Your task to perform on an android device: Go to privacy settings Image 0: 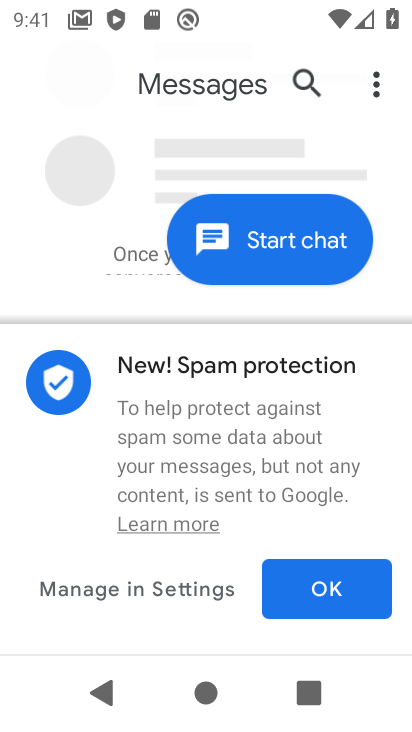
Step 0: press home button
Your task to perform on an android device: Go to privacy settings Image 1: 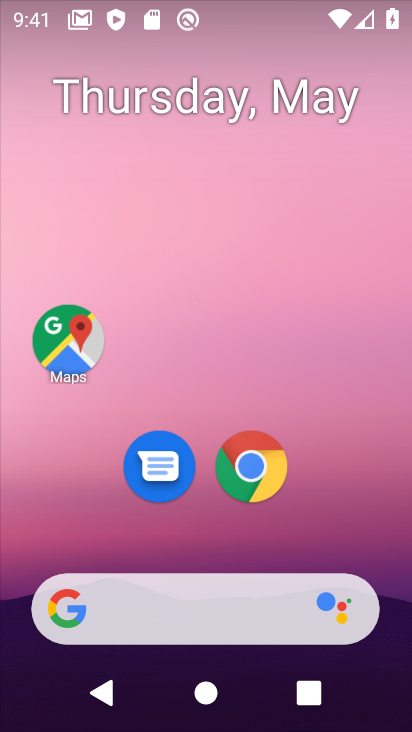
Step 1: drag from (327, 529) to (337, 51)
Your task to perform on an android device: Go to privacy settings Image 2: 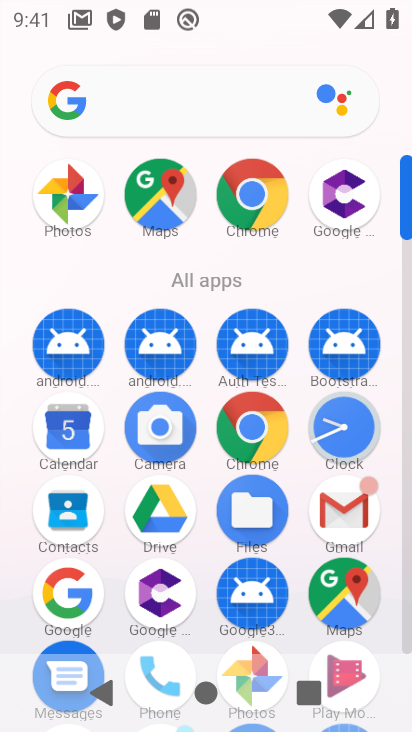
Step 2: drag from (219, 569) to (221, 116)
Your task to perform on an android device: Go to privacy settings Image 3: 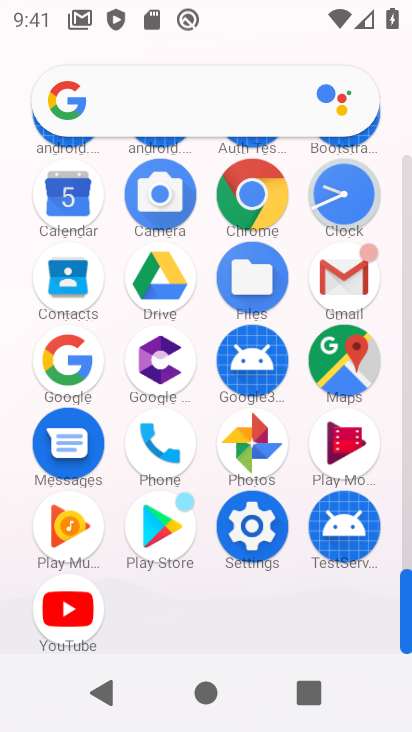
Step 3: click (246, 535)
Your task to perform on an android device: Go to privacy settings Image 4: 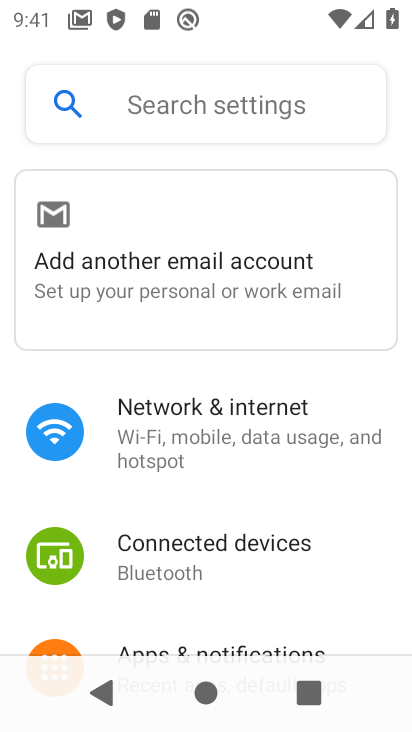
Step 4: drag from (268, 573) to (327, 108)
Your task to perform on an android device: Go to privacy settings Image 5: 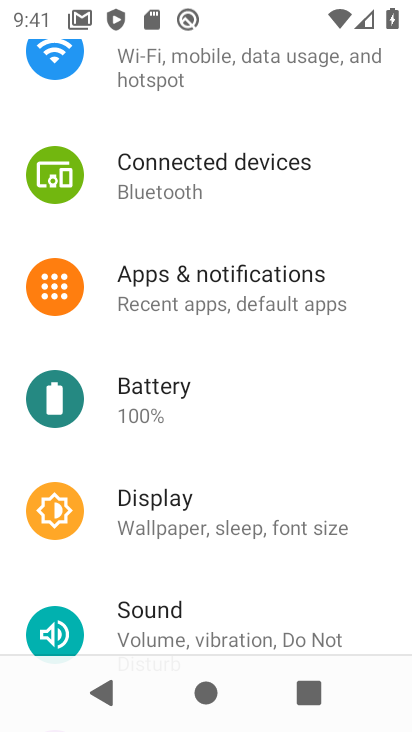
Step 5: drag from (266, 554) to (279, 140)
Your task to perform on an android device: Go to privacy settings Image 6: 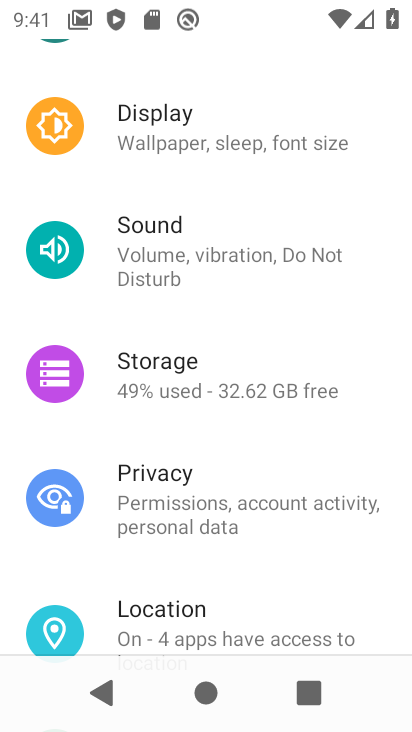
Step 6: drag from (209, 547) to (244, 322)
Your task to perform on an android device: Go to privacy settings Image 7: 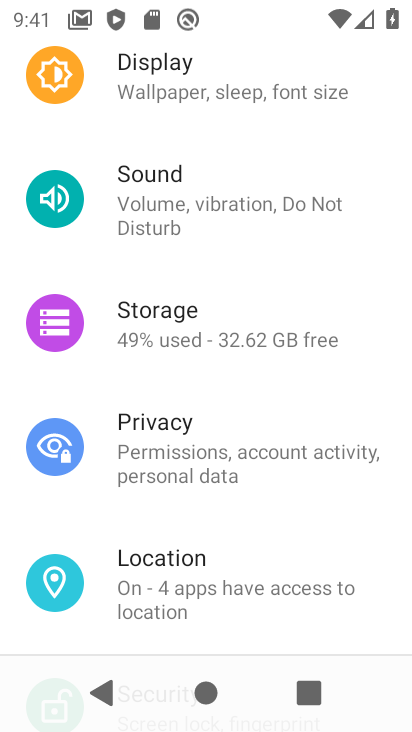
Step 7: click (167, 416)
Your task to perform on an android device: Go to privacy settings Image 8: 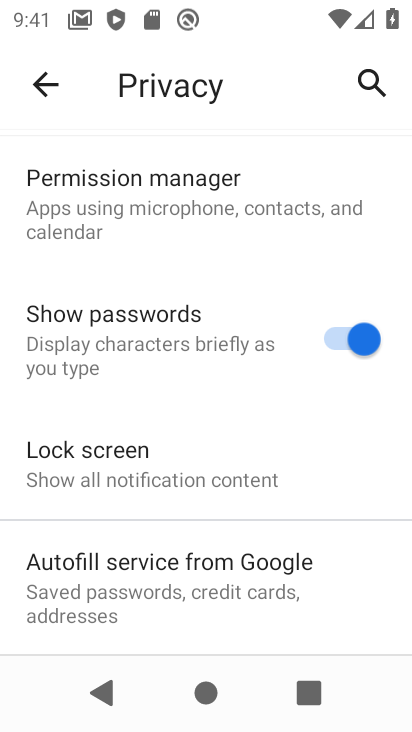
Step 8: task complete